Your task to perform on an android device: Search for Mexican restaurants on Maps Image 0: 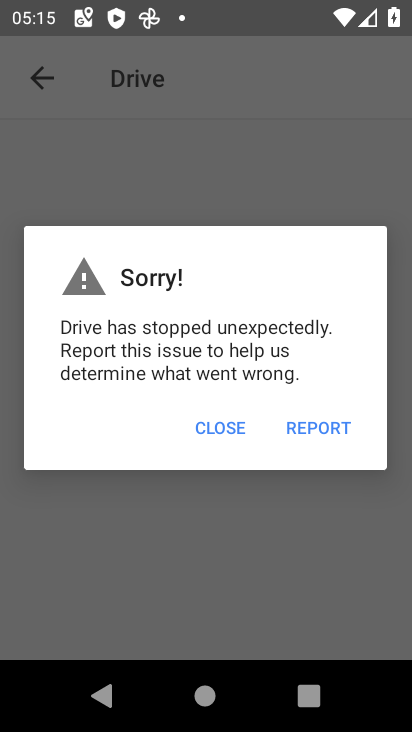
Step 0: press home button
Your task to perform on an android device: Search for Mexican restaurants on Maps Image 1: 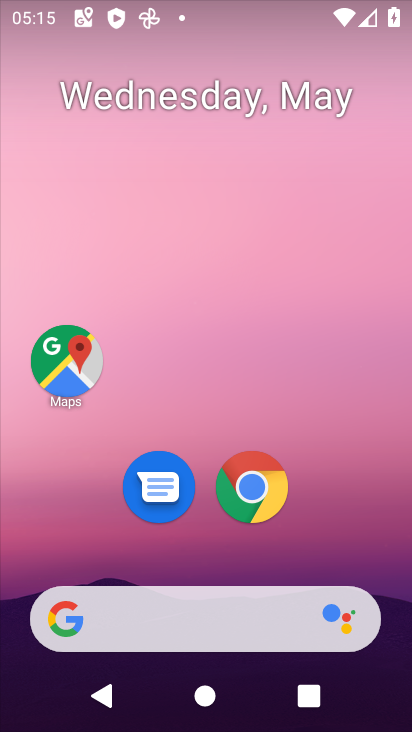
Step 1: click (85, 386)
Your task to perform on an android device: Search for Mexican restaurants on Maps Image 2: 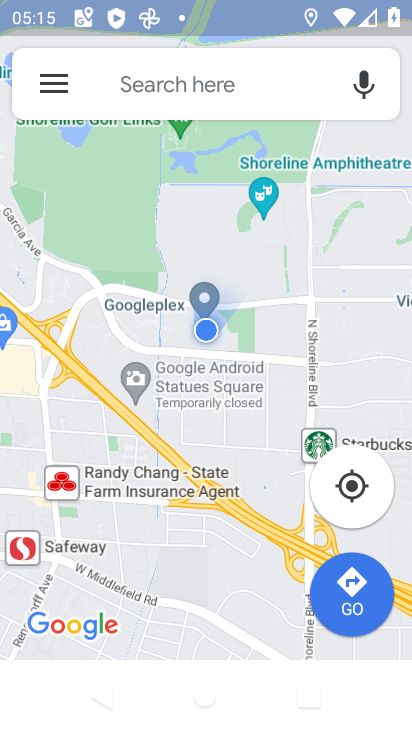
Step 2: click (126, 71)
Your task to perform on an android device: Search for Mexican restaurants on Maps Image 3: 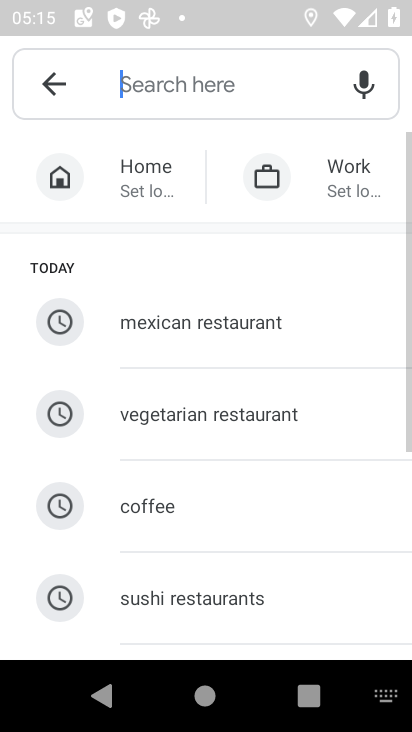
Step 3: click (308, 351)
Your task to perform on an android device: Search for Mexican restaurants on Maps Image 4: 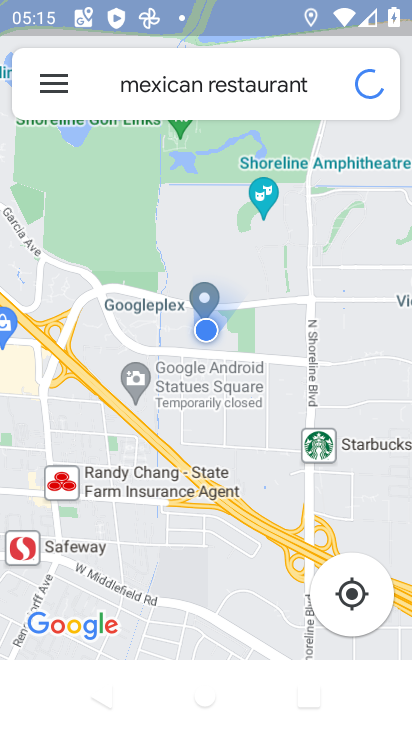
Step 4: task complete